Your task to perform on an android device: What's on my calendar tomorrow? Image 0: 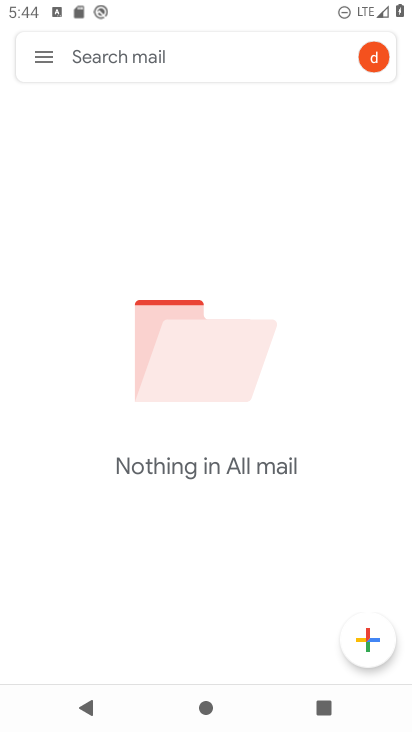
Step 0: press home button
Your task to perform on an android device: What's on my calendar tomorrow? Image 1: 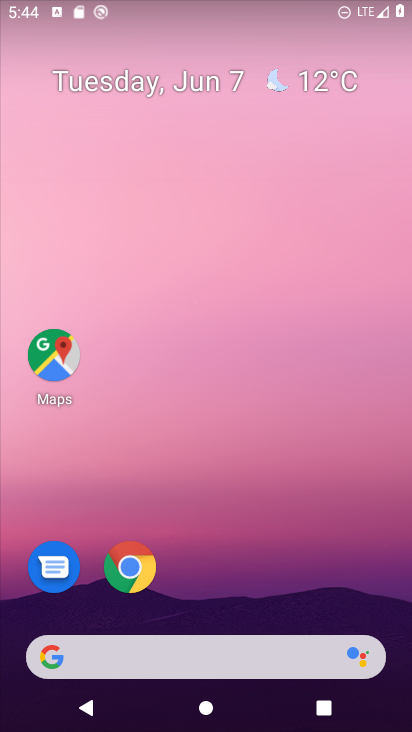
Step 1: drag from (41, 239) to (383, 190)
Your task to perform on an android device: What's on my calendar tomorrow? Image 2: 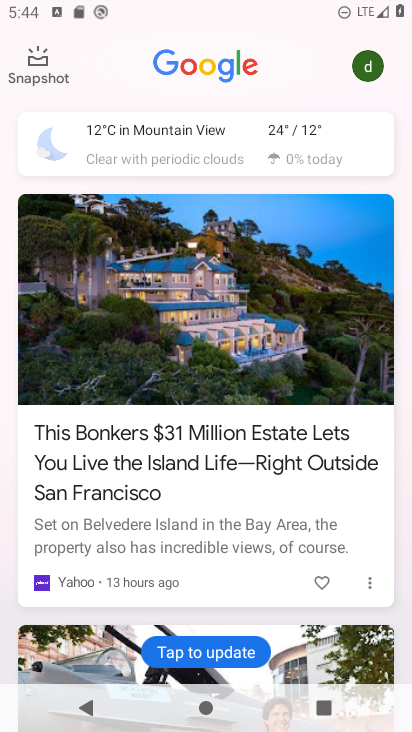
Step 2: press home button
Your task to perform on an android device: What's on my calendar tomorrow? Image 3: 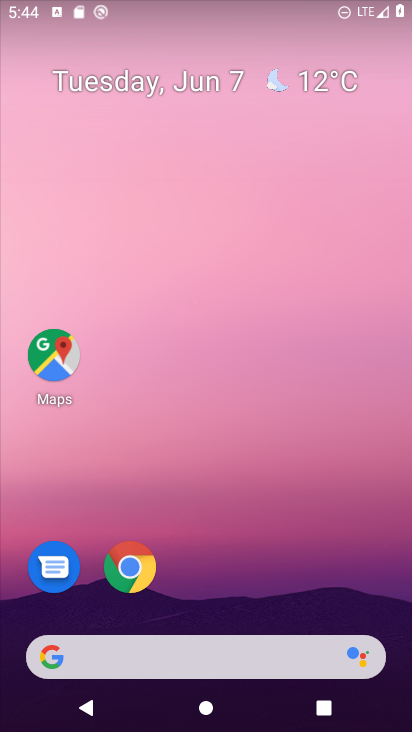
Step 3: drag from (293, 648) to (320, 14)
Your task to perform on an android device: What's on my calendar tomorrow? Image 4: 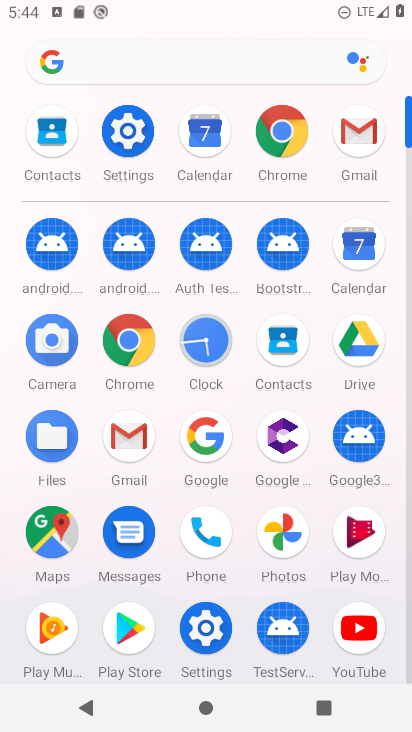
Step 4: click (374, 250)
Your task to perform on an android device: What's on my calendar tomorrow? Image 5: 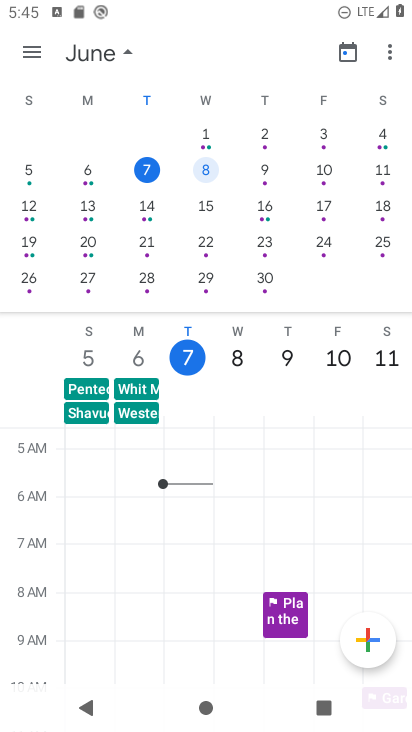
Step 5: click (201, 178)
Your task to perform on an android device: What's on my calendar tomorrow? Image 6: 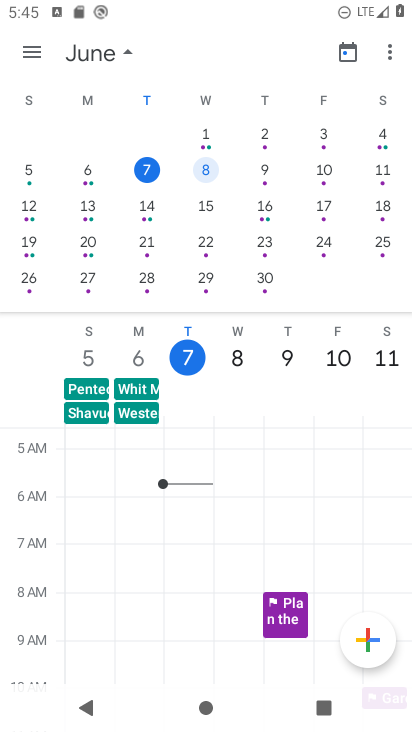
Step 6: task complete